Your task to perform on an android device: set default search engine in the chrome app Image 0: 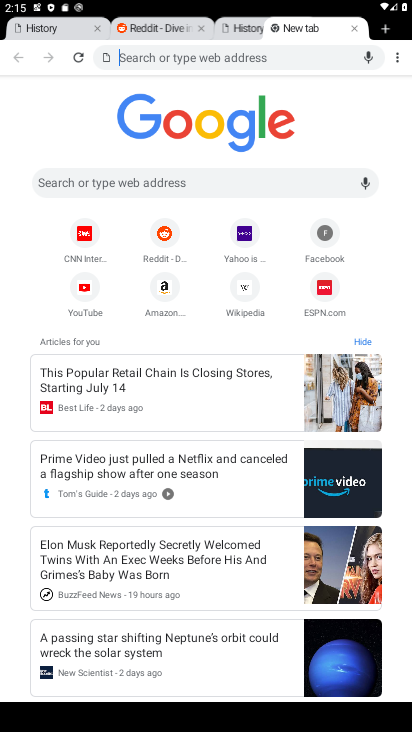
Step 0: drag from (394, 55) to (317, 302)
Your task to perform on an android device: set default search engine in the chrome app Image 1: 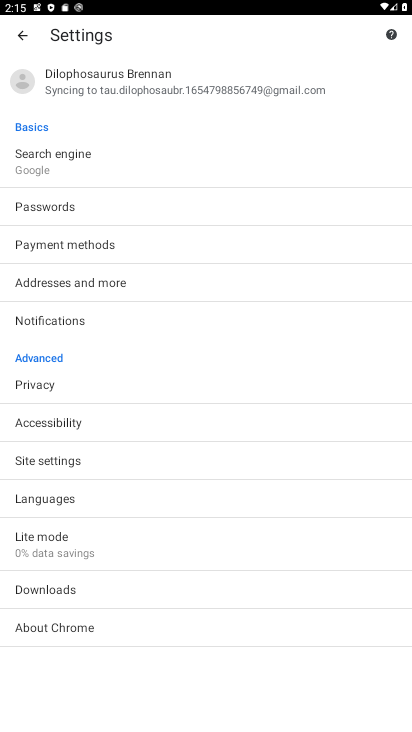
Step 1: click (71, 161)
Your task to perform on an android device: set default search engine in the chrome app Image 2: 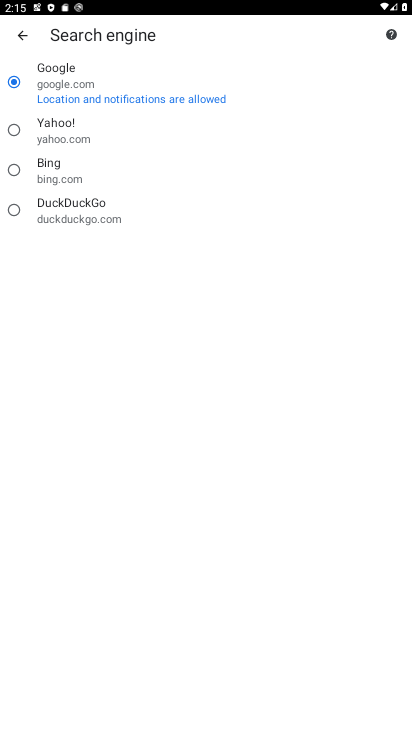
Step 2: click (43, 76)
Your task to perform on an android device: set default search engine in the chrome app Image 3: 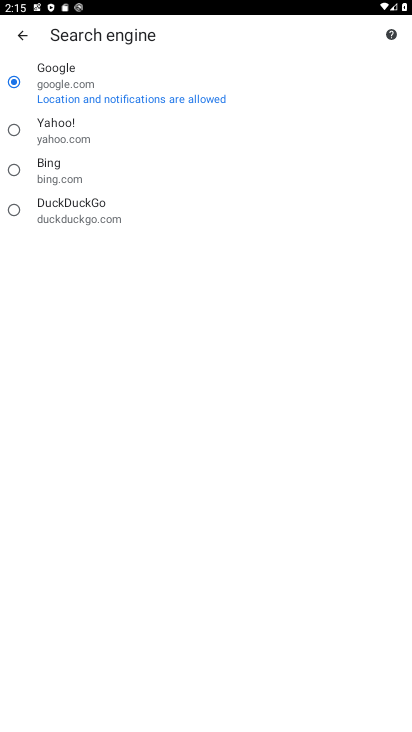
Step 3: task complete